Your task to perform on an android device: Open Android settings Image 0: 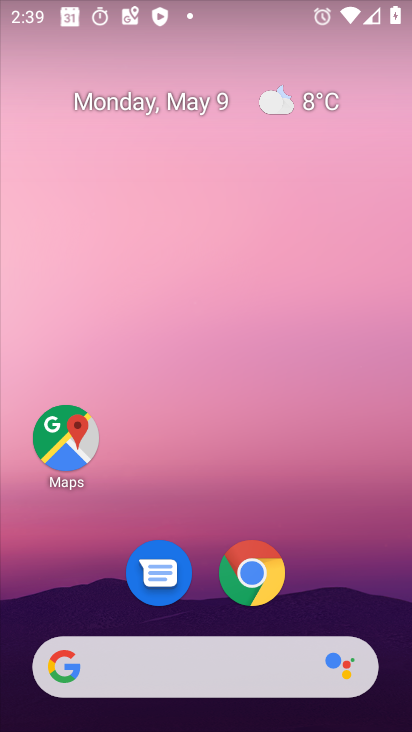
Step 0: drag from (190, 683) to (339, 245)
Your task to perform on an android device: Open Android settings Image 1: 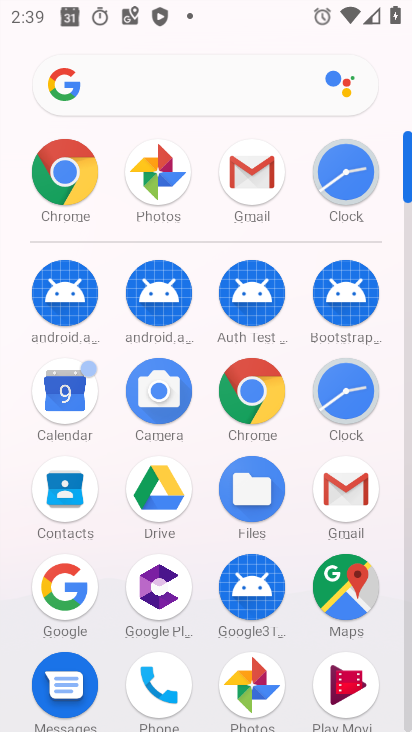
Step 1: drag from (126, 566) to (199, 273)
Your task to perform on an android device: Open Android settings Image 2: 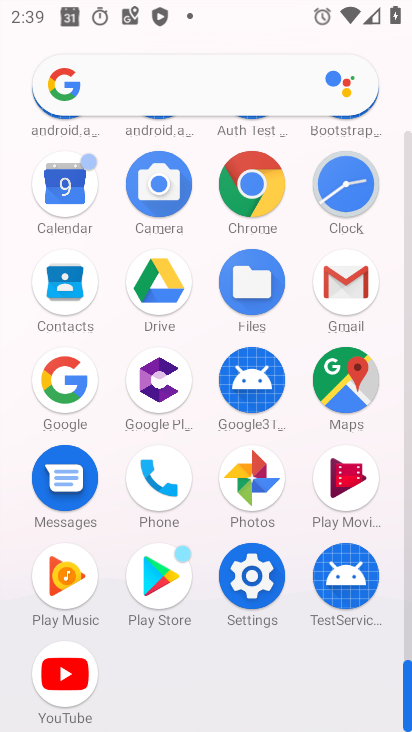
Step 2: click (245, 574)
Your task to perform on an android device: Open Android settings Image 3: 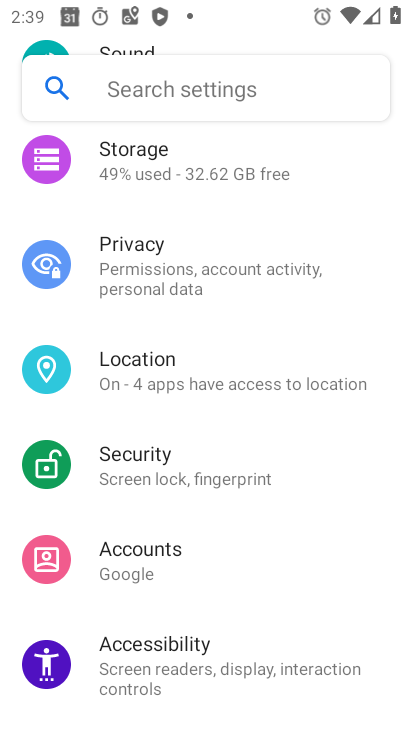
Step 3: task complete